Your task to perform on an android device: show emergency info Image 0: 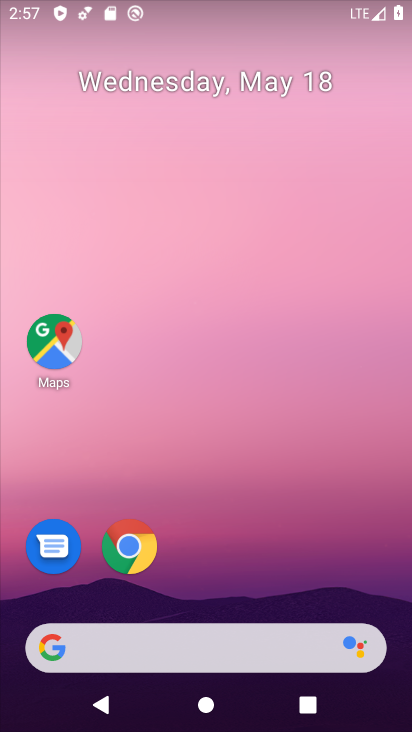
Step 0: drag from (219, 723) to (232, 173)
Your task to perform on an android device: show emergency info Image 1: 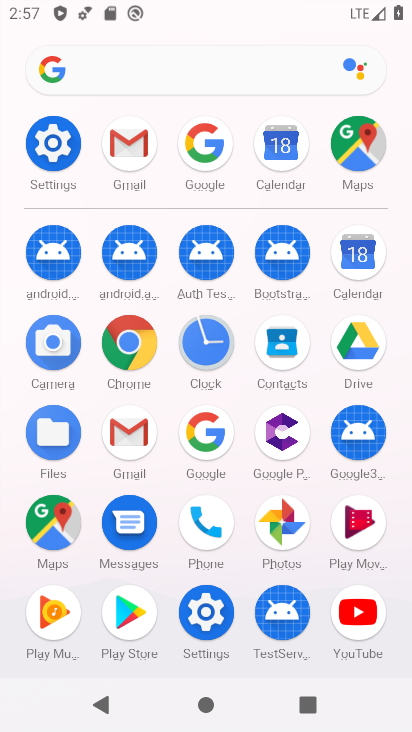
Step 1: click (55, 142)
Your task to perform on an android device: show emergency info Image 2: 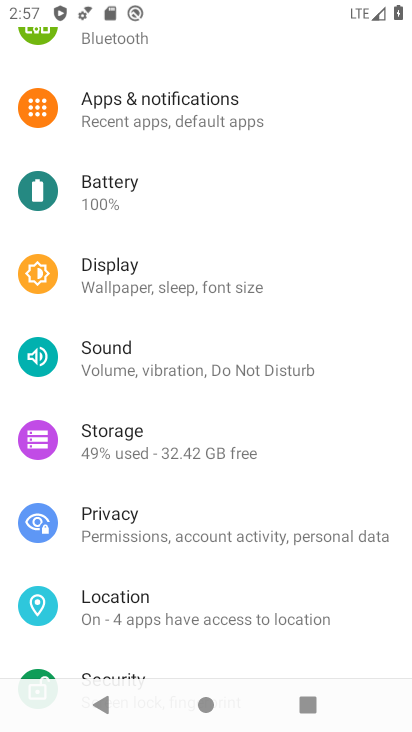
Step 2: drag from (205, 193) to (229, 157)
Your task to perform on an android device: show emergency info Image 3: 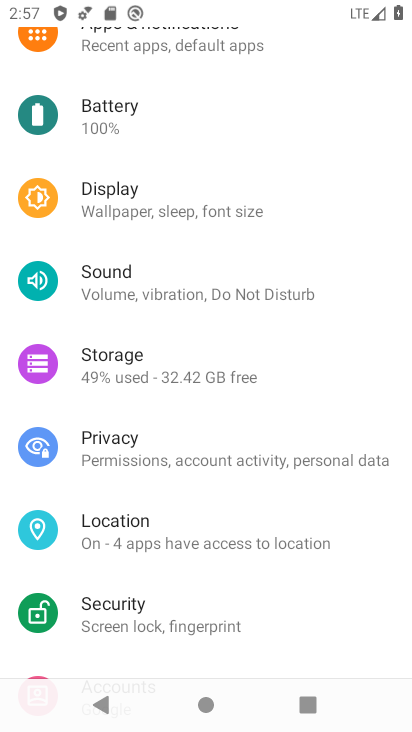
Step 3: drag from (182, 562) to (209, 227)
Your task to perform on an android device: show emergency info Image 4: 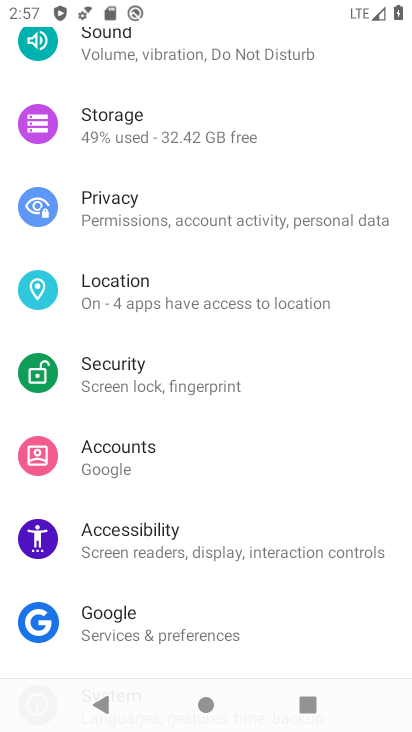
Step 4: drag from (153, 613) to (185, 217)
Your task to perform on an android device: show emergency info Image 5: 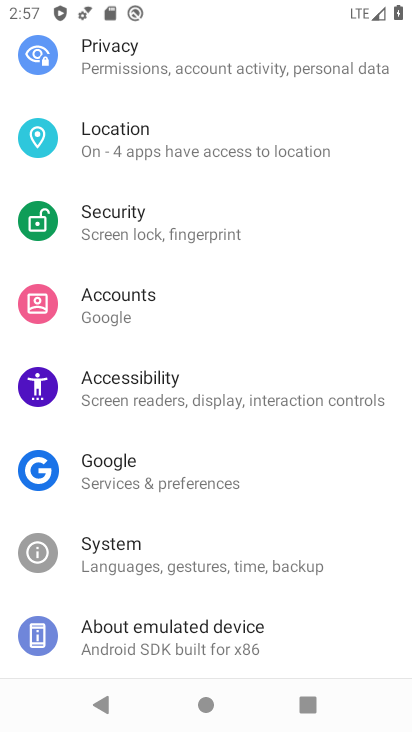
Step 5: click (139, 625)
Your task to perform on an android device: show emergency info Image 6: 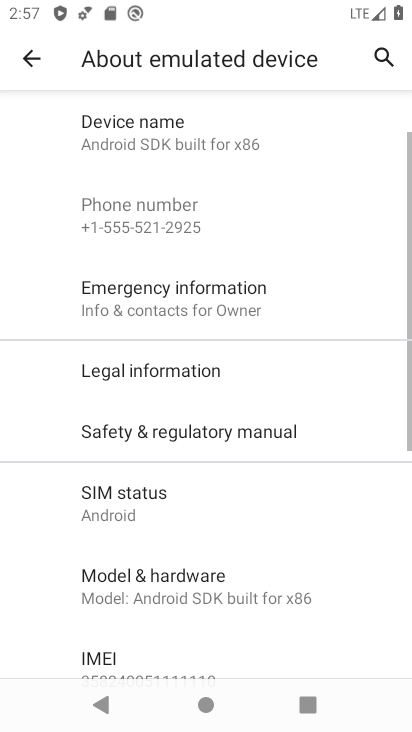
Step 6: drag from (171, 647) to (192, 521)
Your task to perform on an android device: show emergency info Image 7: 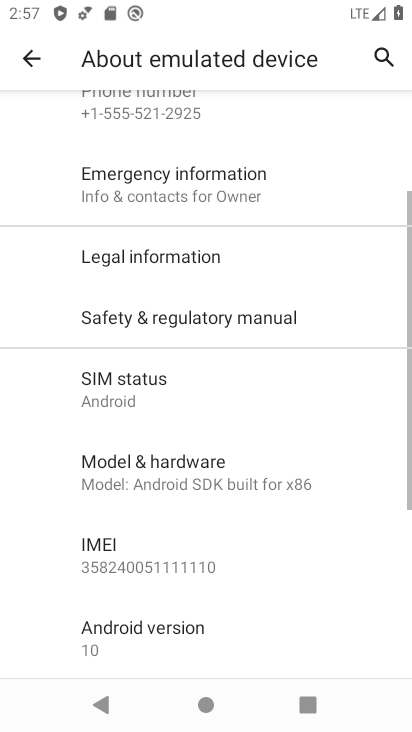
Step 7: click (154, 192)
Your task to perform on an android device: show emergency info Image 8: 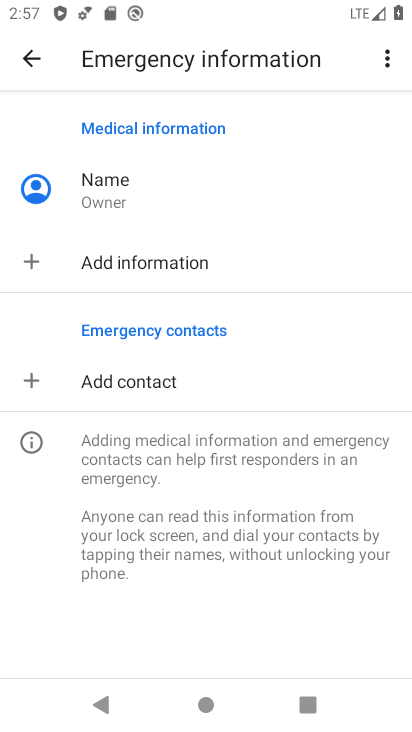
Step 8: task complete